Your task to perform on an android device: delete a single message in the gmail app Image 0: 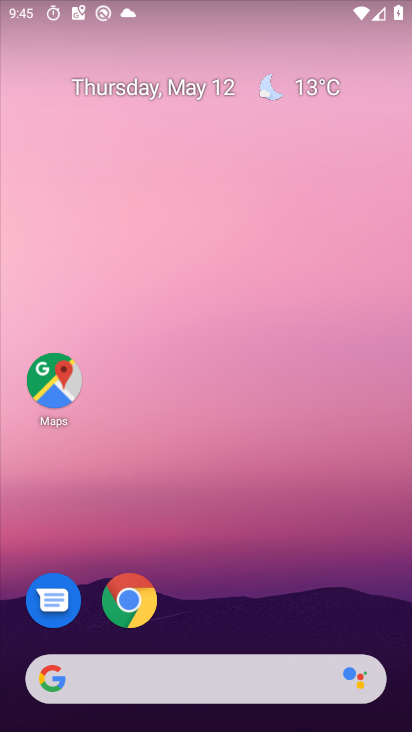
Step 0: drag from (302, 471) to (368, 29)
Your task to perform on an android device: delete a single message in the gmail app Image 1: 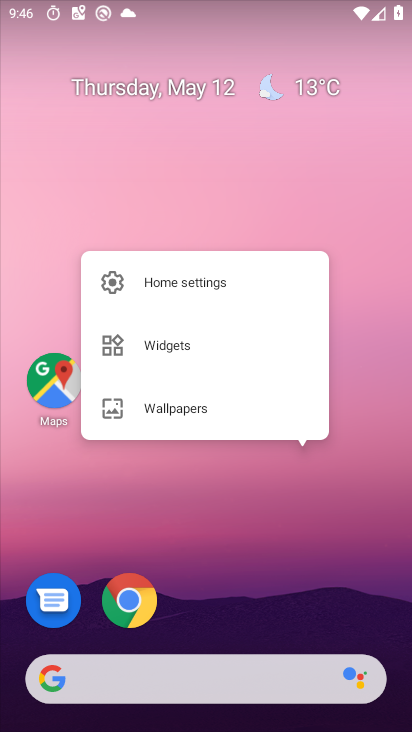
Step 1: drag from (334, 448) to (180, 21)
Your task to perform on an android device: delete a single message in the gmail app Image 2: 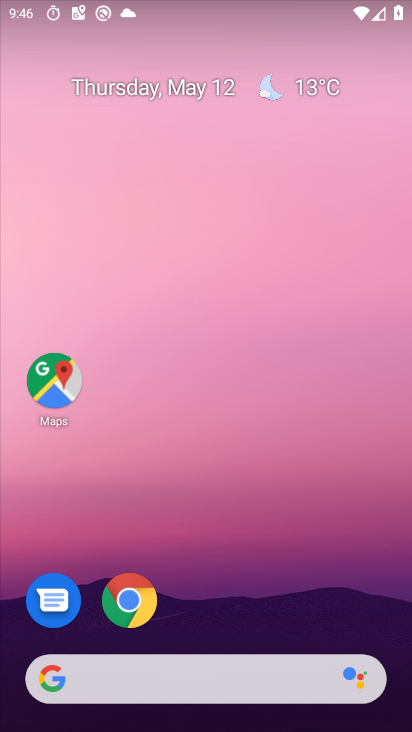
Step 2: drag from (210, 344) to (200, 21)
Your task to perform on an android device: delete a single message in the gmail app Image 3: 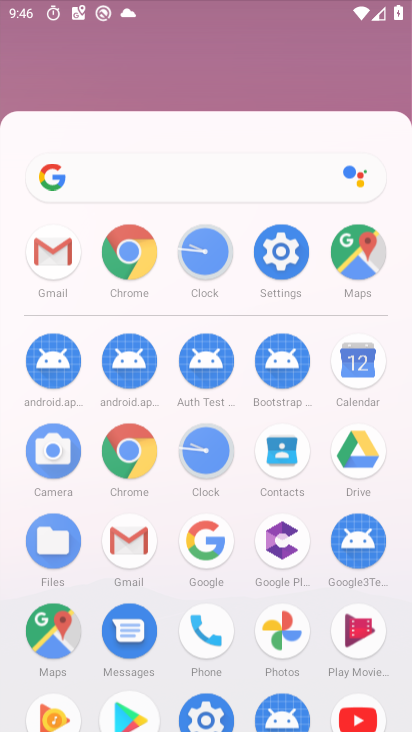
Step 3: drag from (228, 366) to (376, 459)
Your task to perform on an android device: delete a single message in the gmail app Image 4: 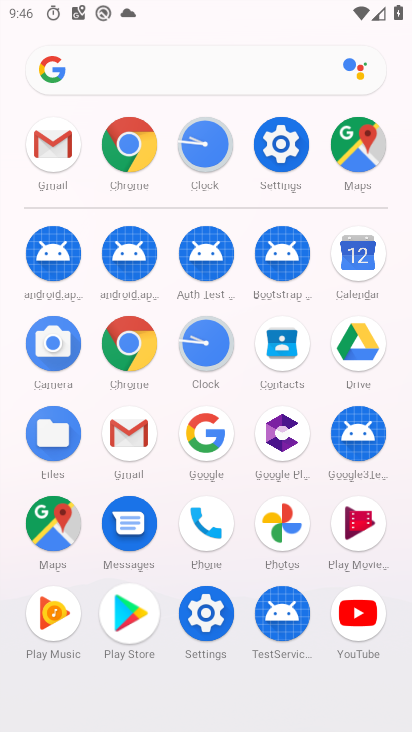
Step 4: click (133, 446)
Your task to perform on an android device: delete a single message in the gmail app Image 5: 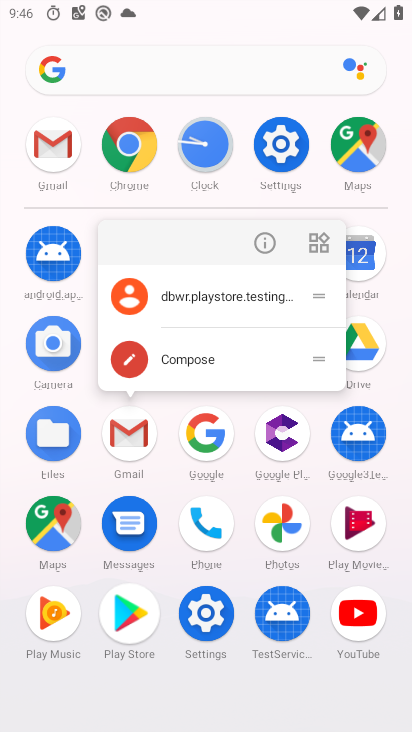
Step 5: click (132, 434)
Your task to perform on an android device: delete a single message in the gmail app Image 6: 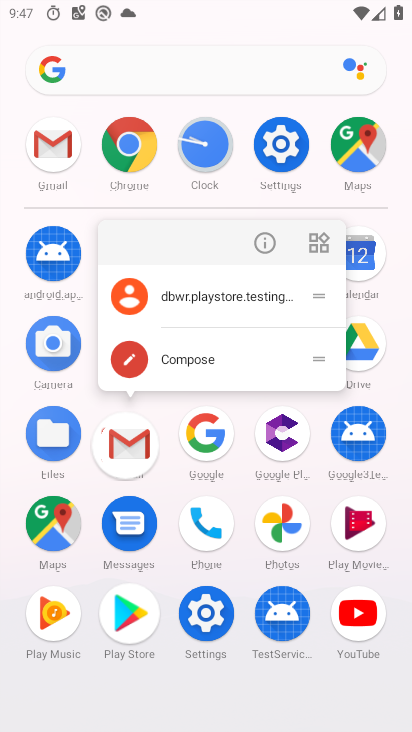
Step 6: click (126, 420)
Your task to perform on an android device: delete a single message in the gmail app Image 7: 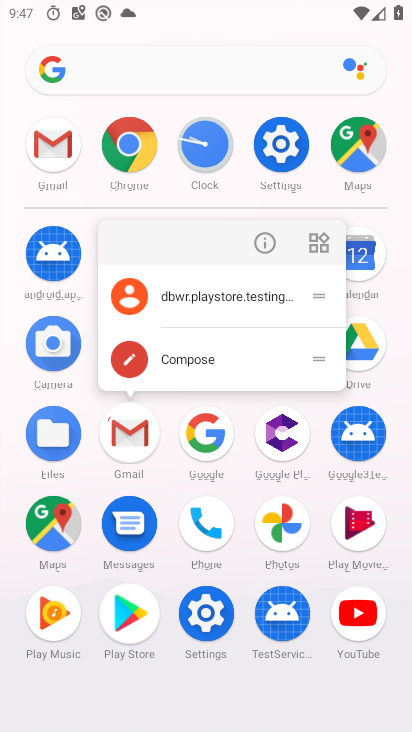
Step 7: click (129, 427)
Your task to perform on an android device: delete a single message in the gmail app Image 8: 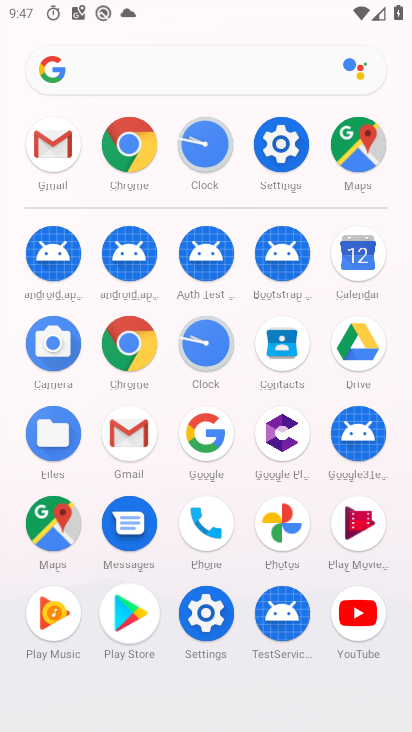
Step 8: click (124, 428)
Your task to perform on an android device: delete a single message in the gmail app Image 9: 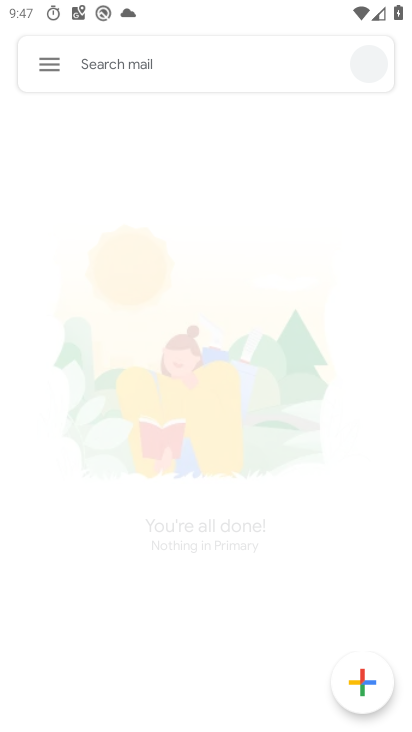
Step 9: click (126, 440)
Your task to perform on an android device: delete a single message in the gmail app Image 10: 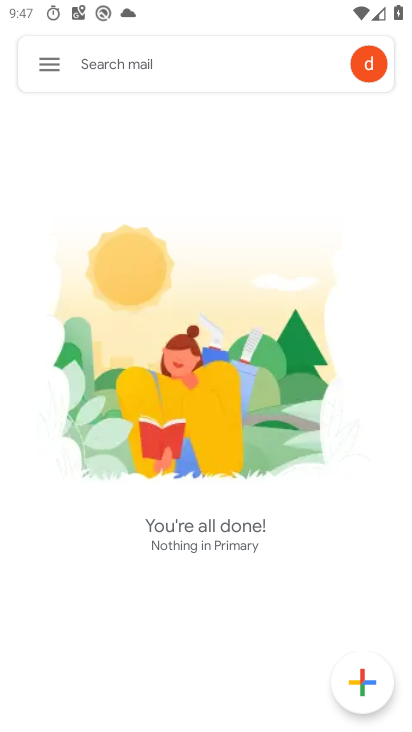
Step 10: click (42, 65)
Your task to perform on an android device: delete a single message in the gmail app Image 11: 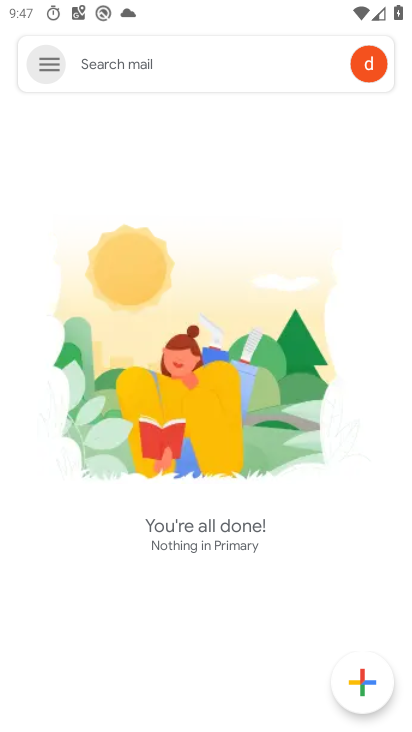
Step 11: click (44, 61)
Your task to perform on an android device: delete a single message in the gmail app Image 12: 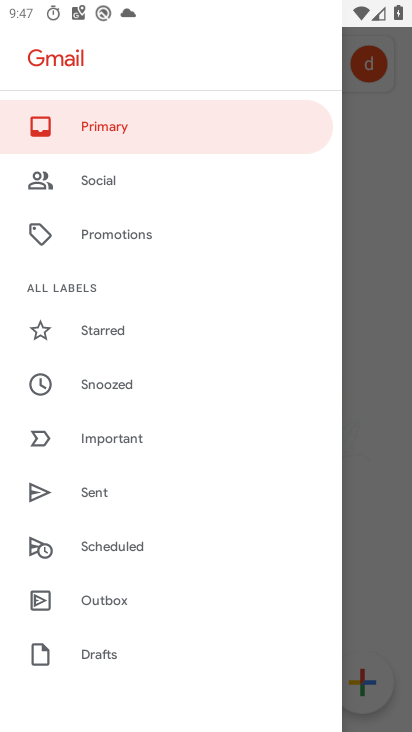
Step 12: drag from (129, 531) to (158, 153)
Your task to perform on an android device: delete a single message in the gmail app Image 13: 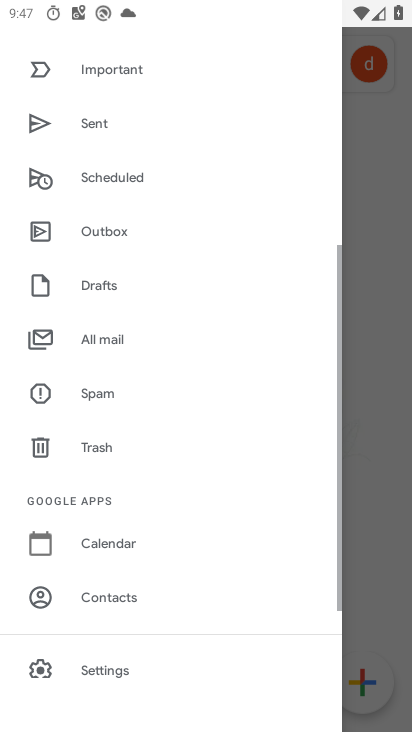
Step 13: drag from (147, 375) to (139, 124)
Your task to perform on an android device: delete a single message in the gmail app Image 14: 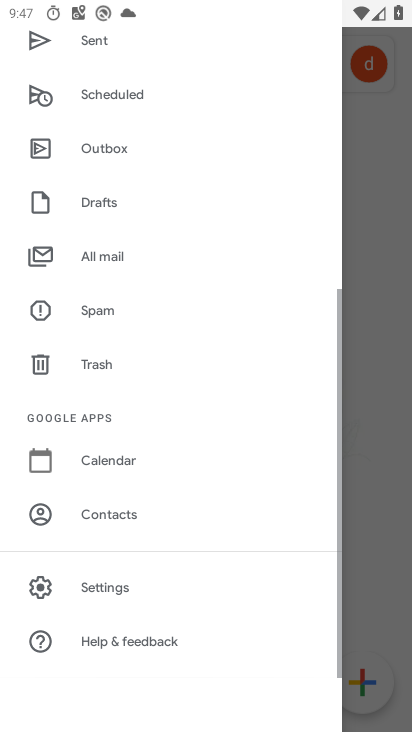
Step 14: drag from (120, 547) to (136, 189)
Your task to perform on an android device: delete a single message in the gmail app Image 15: 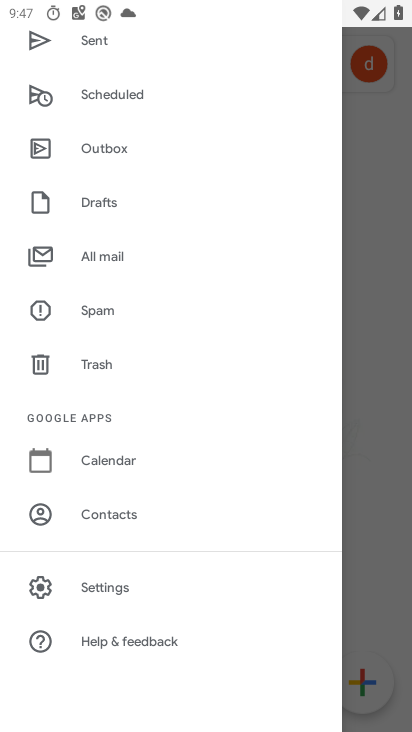
Step 15: click (108, 253)
Your task to perform on an android device: delete a single message in the gmail app Image 16: 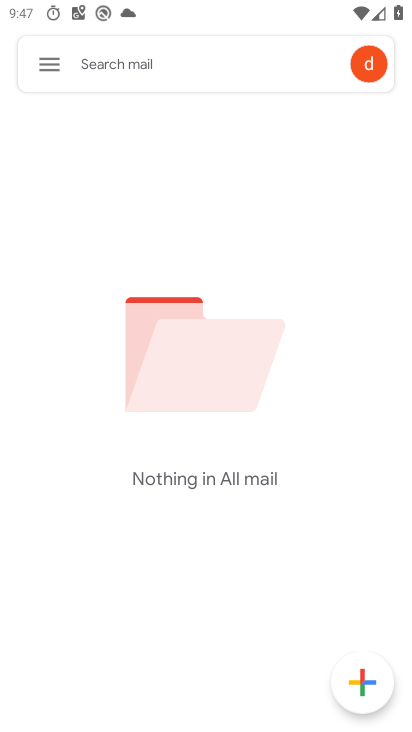
Step 16: task complete